Your task to perform on an android device: set the timer Image 0: 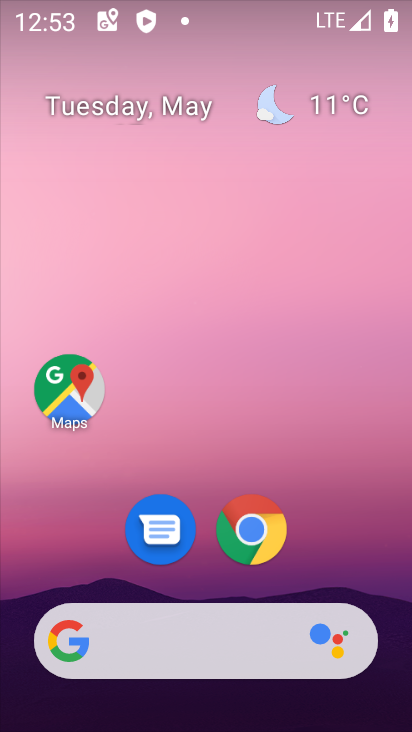
Step 0: drag from (210, 719) to (214, 47)
Your task to perform on an android device: set the timer Image 1: 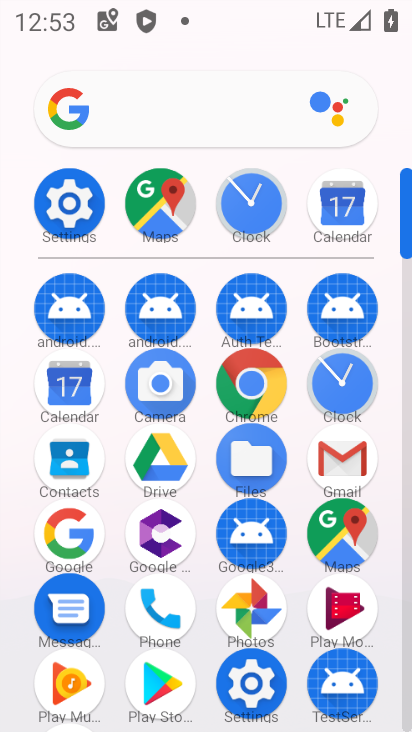
Step 1: click (347, 391)
Your task to perform on an android device: set the timer Image 2: 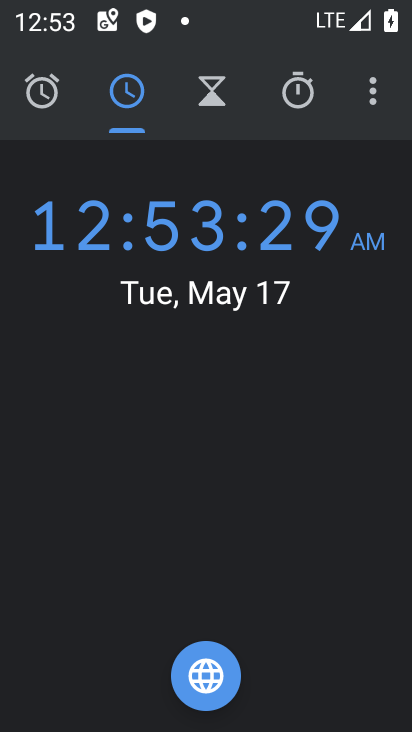
Step 2: click (217, 103)
Your task to perform on an android device: set the timer Image 3: 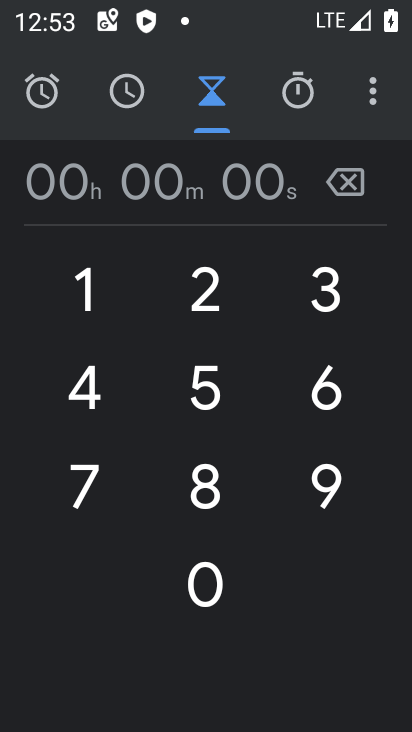
Step 3: click (204, 274)
Your task to perform on an android device: set the timer Image 4: 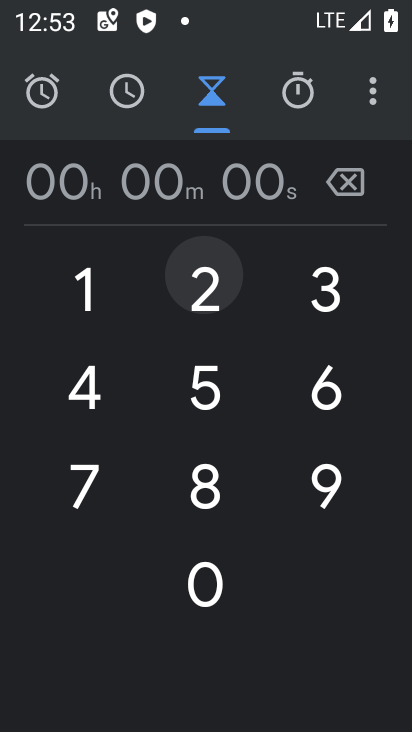
Step 4: click (216, 380)
Your task to perform on an android device: set the timer Image 5: 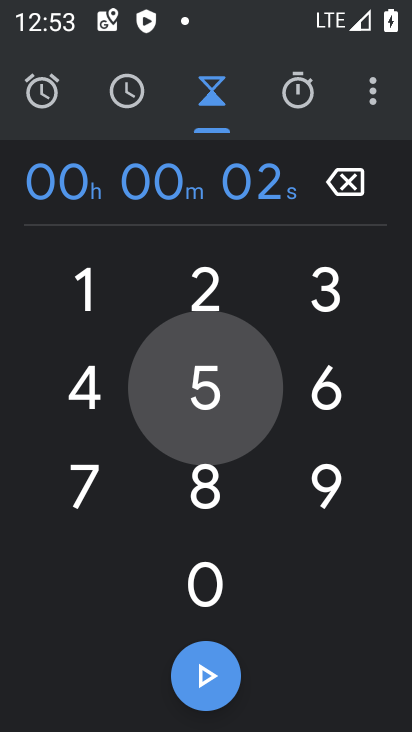
Step 5: click (67, 383)
Your task to perform on an android device: set the timer Image 6: 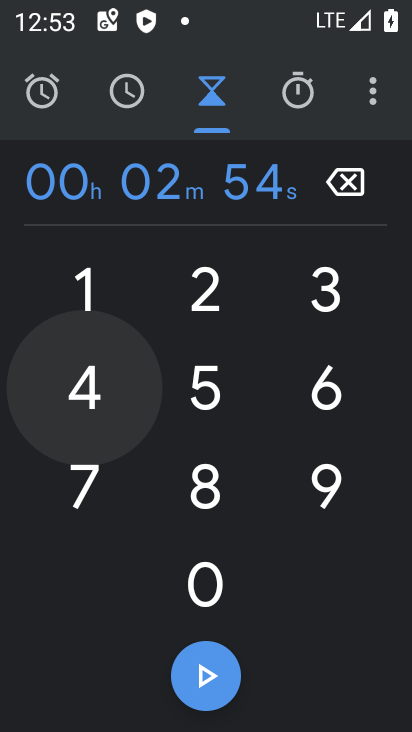
Step 6: click (97, 470)
Your task to perform on an android device: set the timer Image 7: 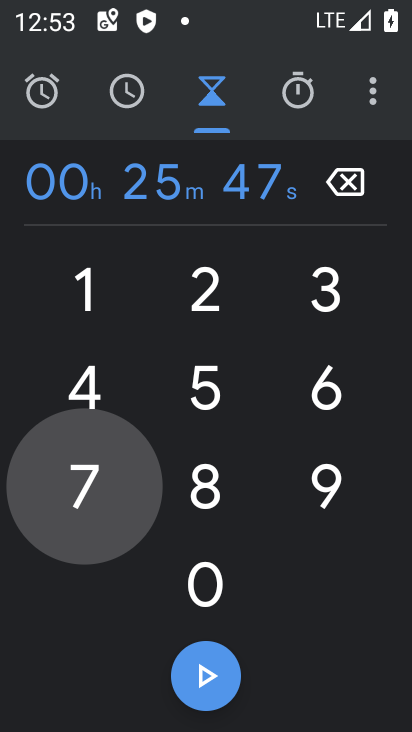
Step 7: click (231, 461)
Your task to perform on an android device: set the timer Image 8: 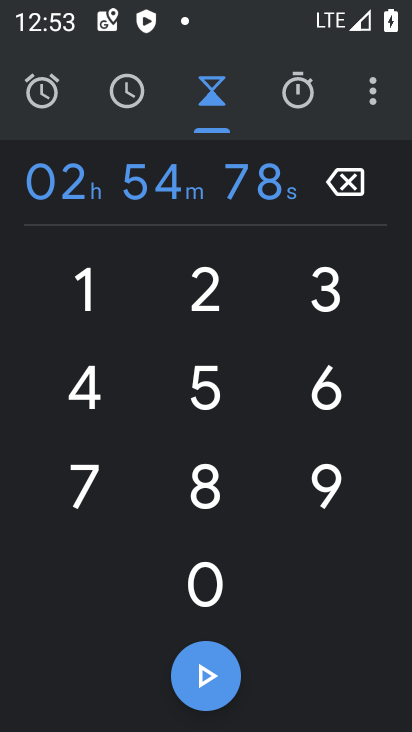
Step 8: click (208, 665)
Your task to perform on an android device: set the timer Image 9: 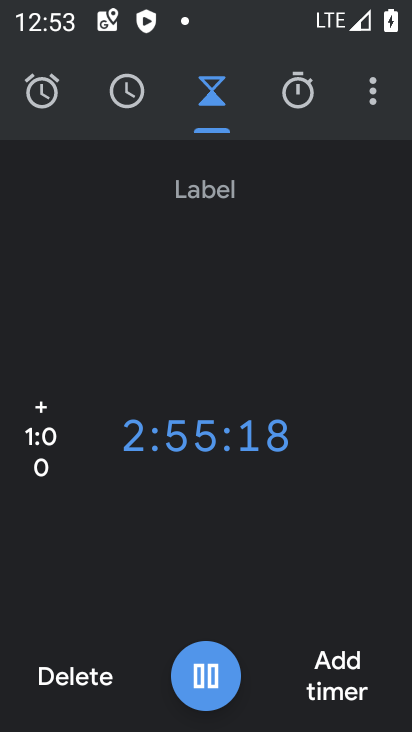
Step 9: task complete